Your task to perform on an android device: stop showing notifications on the lock screen Image 0: 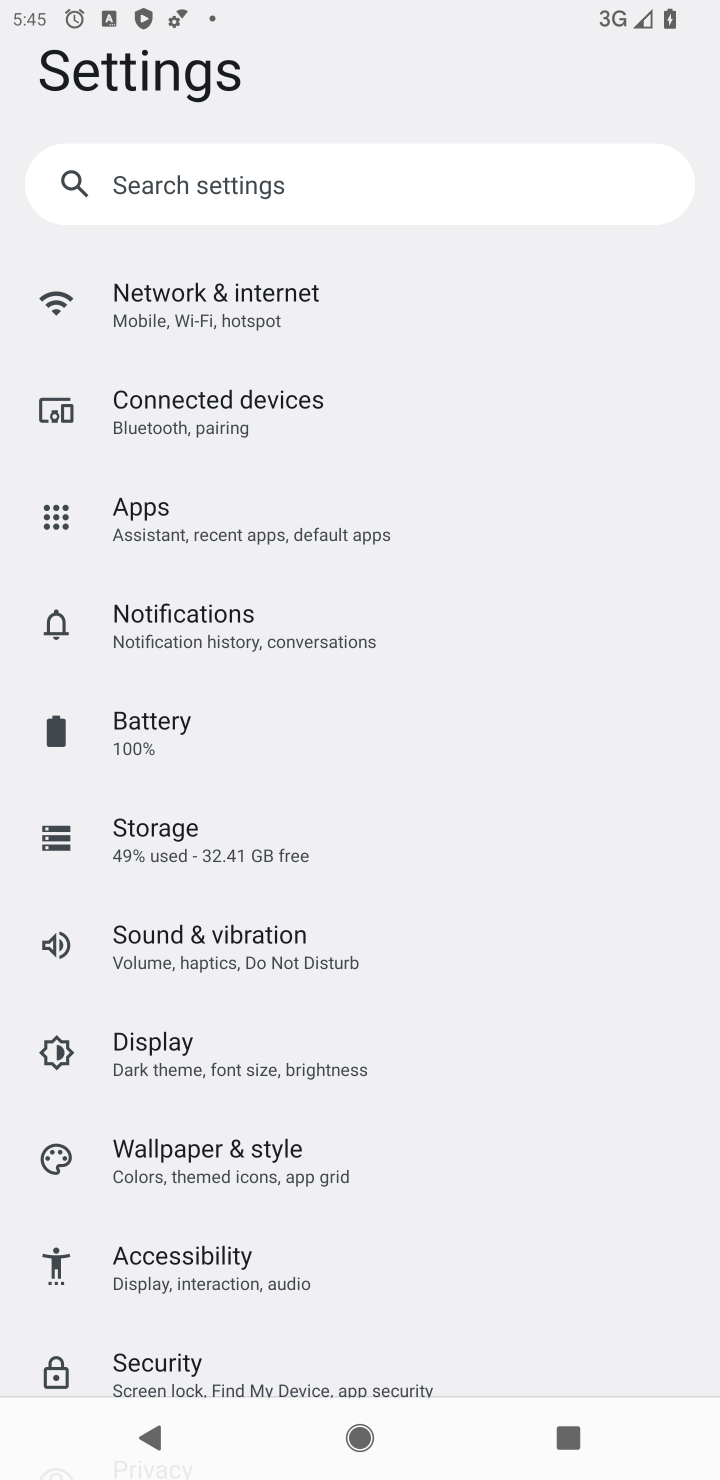
Step 0: press home button
Your task to perform on an android device: stop showing notifications on the lock screen Image 1: 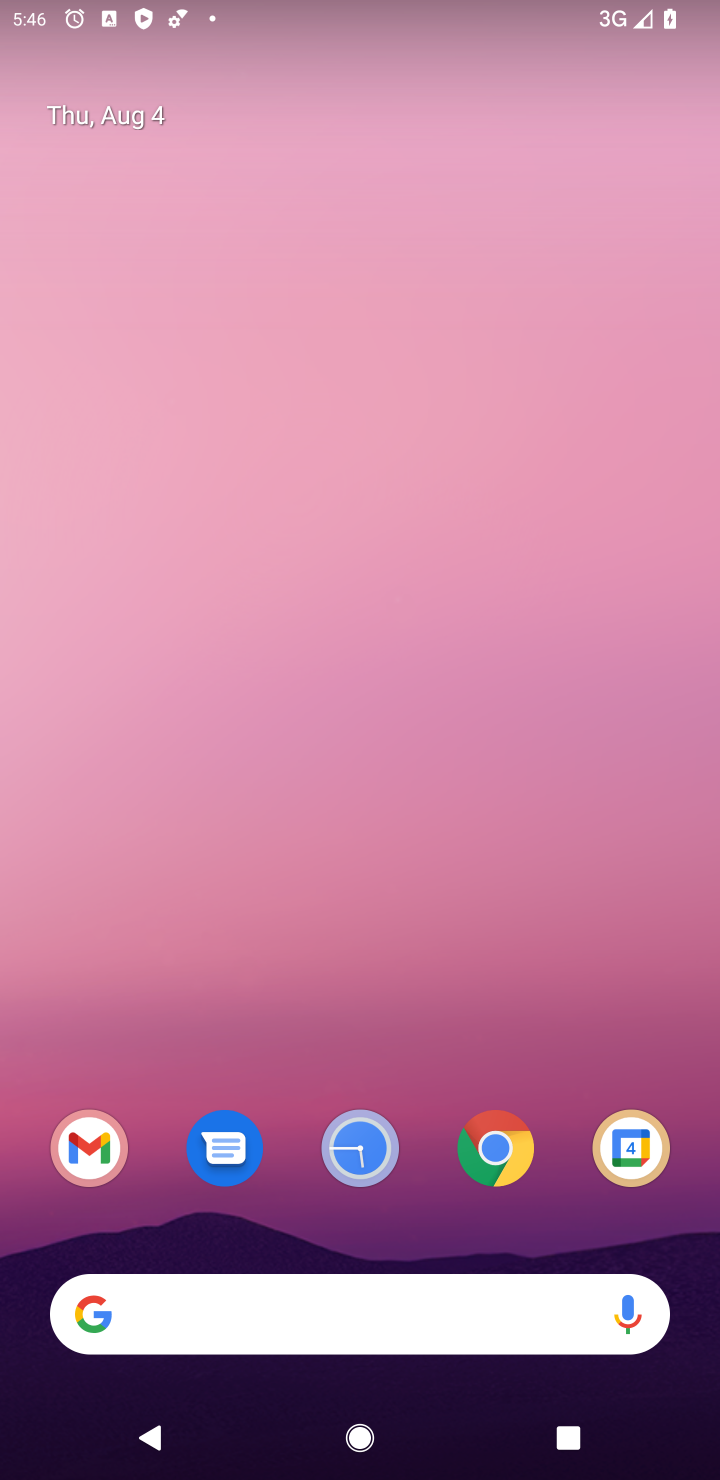
Step 1: drag from (401, 1215) to (412, 294)
Your task to perform on an android device: stop showing notifications on the lock screen Image 2: 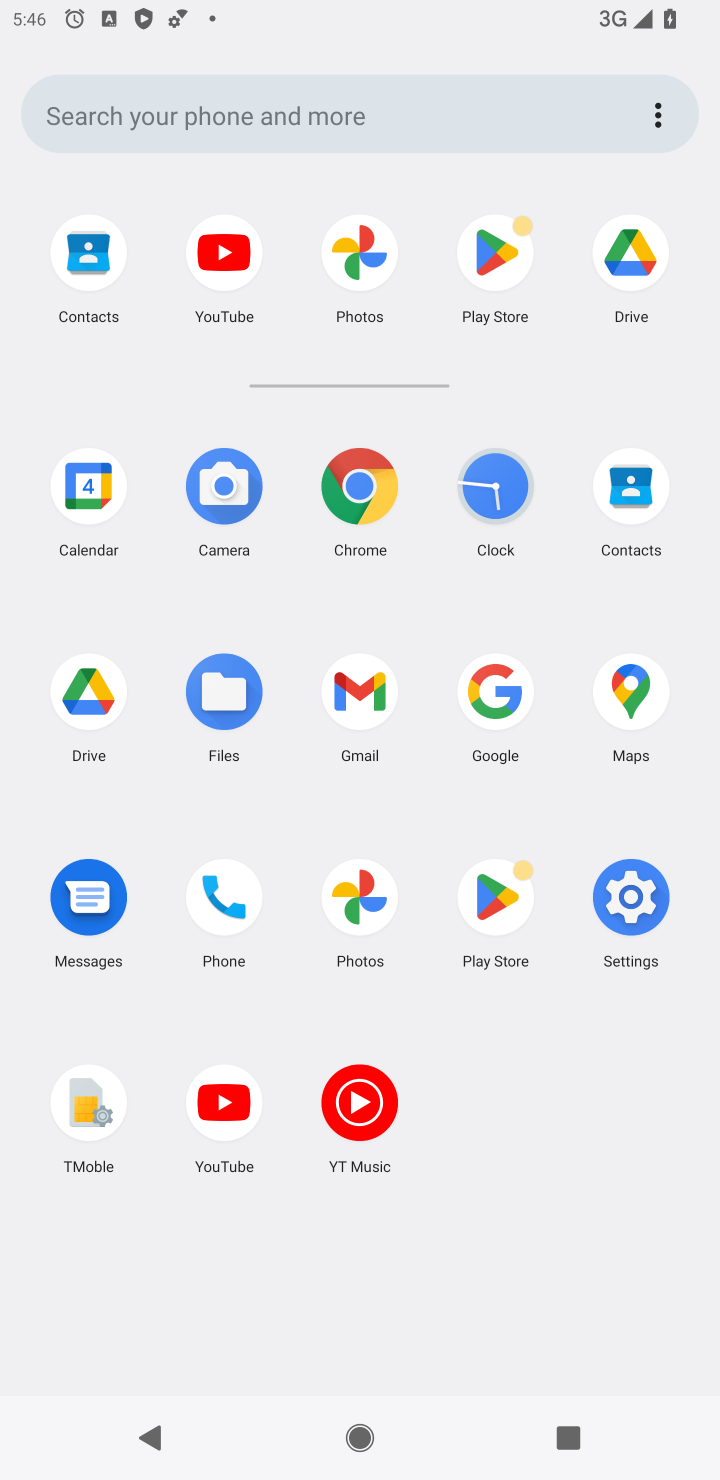
Step 2: click (631, 900)
Your task to perform on an android device: stop showing notifications on the lock screen Image 3: 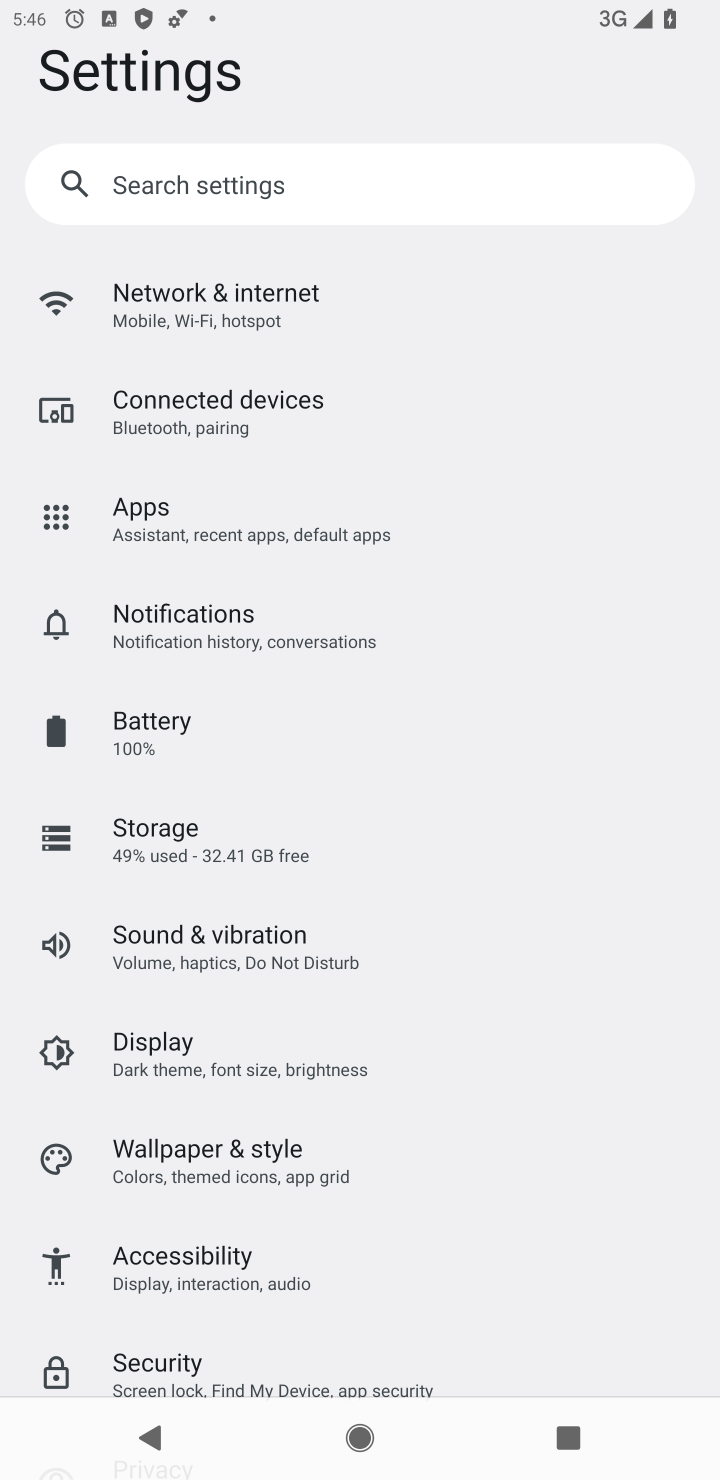
Step 3: click (176, 625)
Your task to perform on an android device: stop showing notifications on the lock screen Image 4: 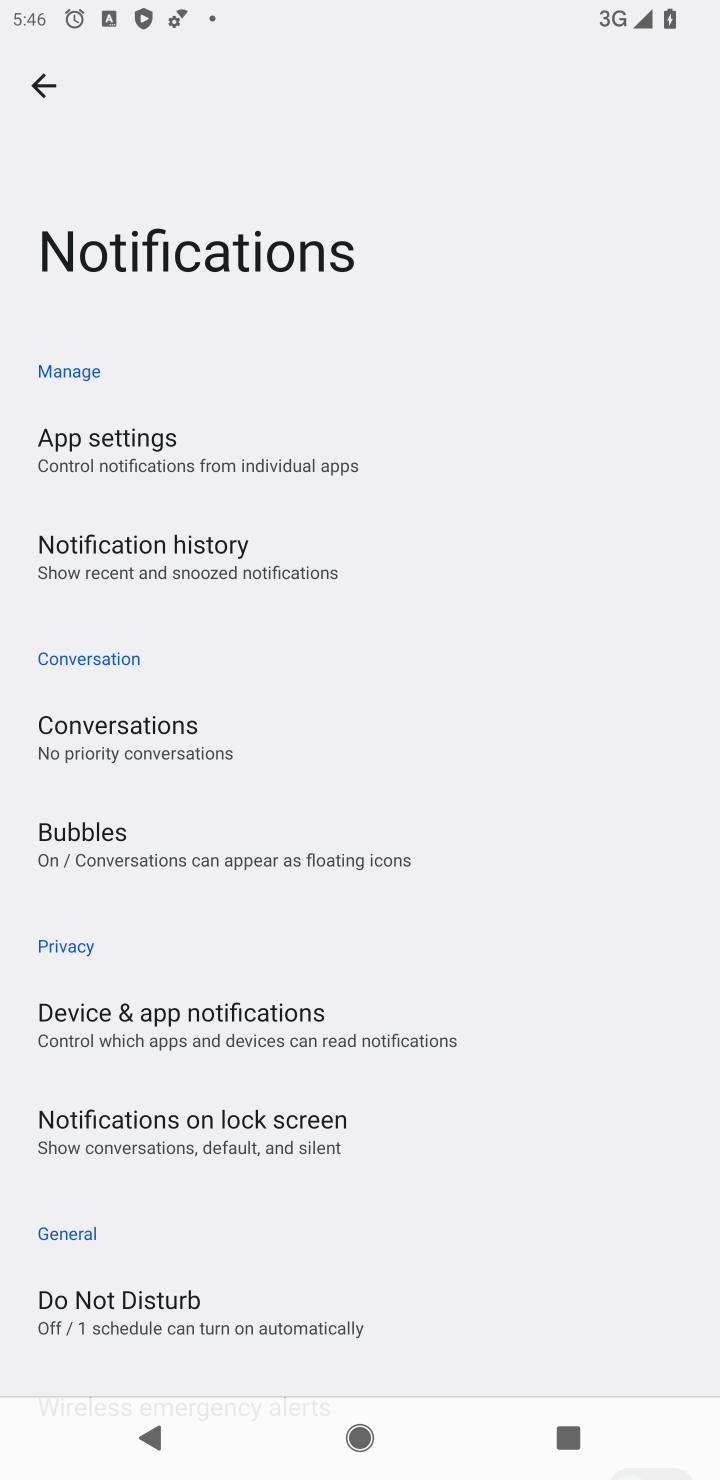
Step 4: click (224, 1124)
Your task to perform on an android device: stop showing notifications on the lock screen Image 5: 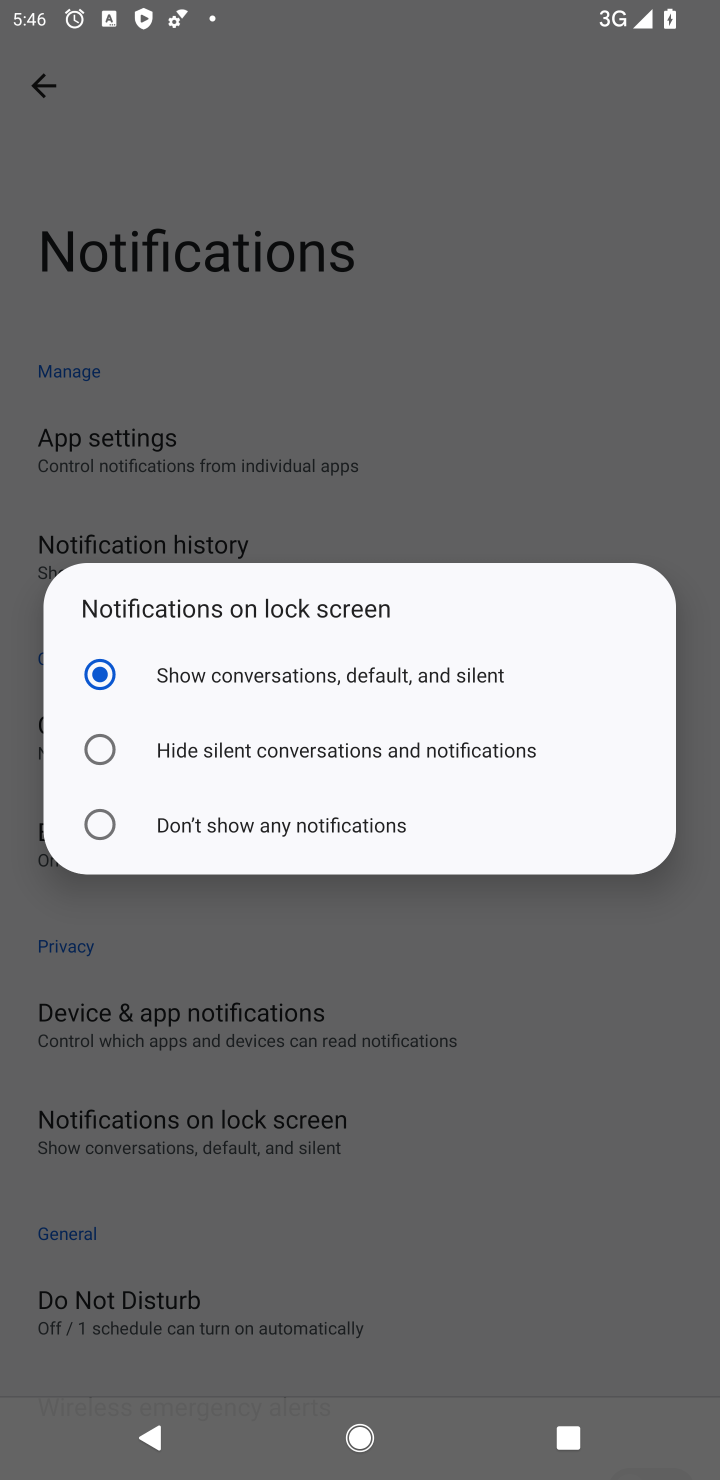
Step 5: click (101, 821)
Your task to perform on an android device: stop showing notifications on the lock screen Image 6: 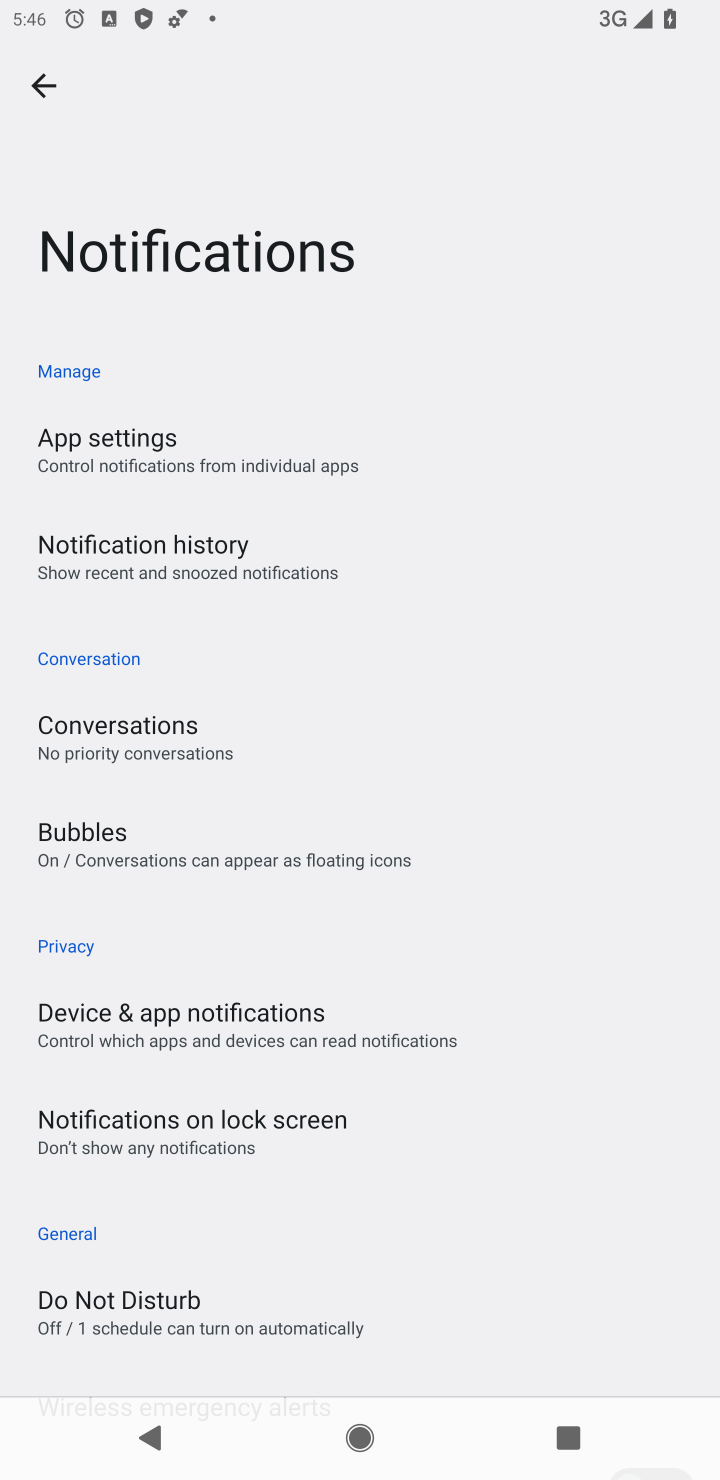
Step 6: task complete